Your task to perform on an android device: Clear the shopping cart on ebay.com. Add macbook air to the cart on ebay.com, then select checkout. Image 0: 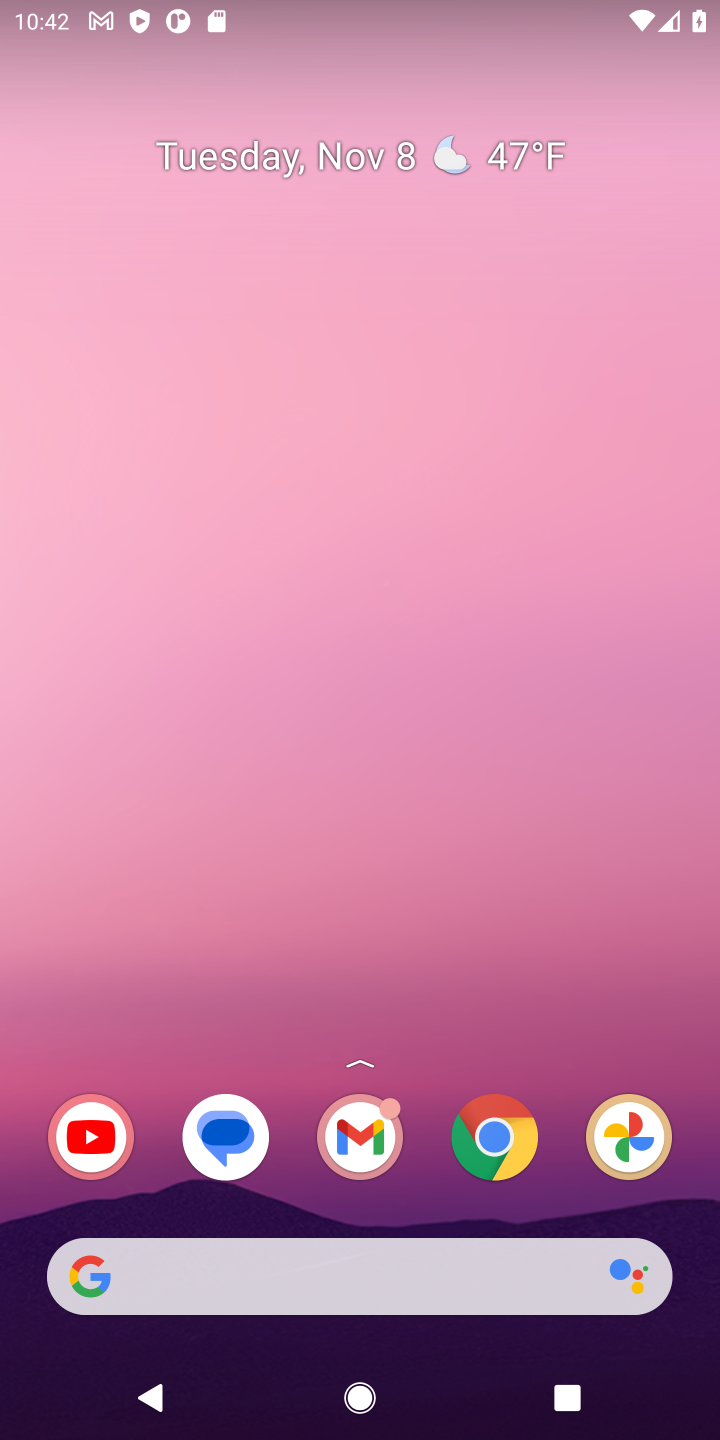
Step 0: click (499, 1140)
Your task to perform on an android device: Clear the shopping cart on ebay.com. Add macbook air to the cart on ebay.com, then select checkout. Image 1: 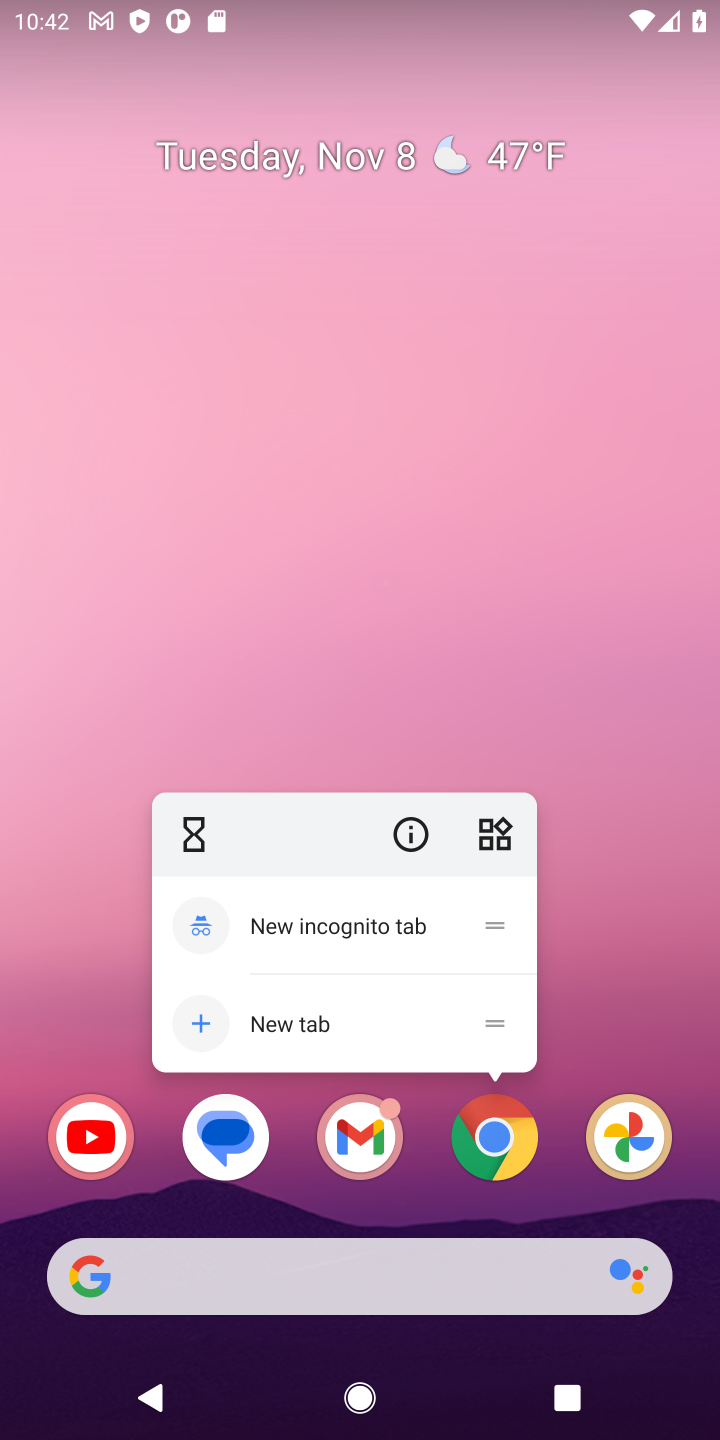
Step 1: click (499, 1140)
Your task to perform on an android device: Clear the shopping cart on ebay.com. Add macbook air to the cart on ebay.com, then select checkout. Image 2: 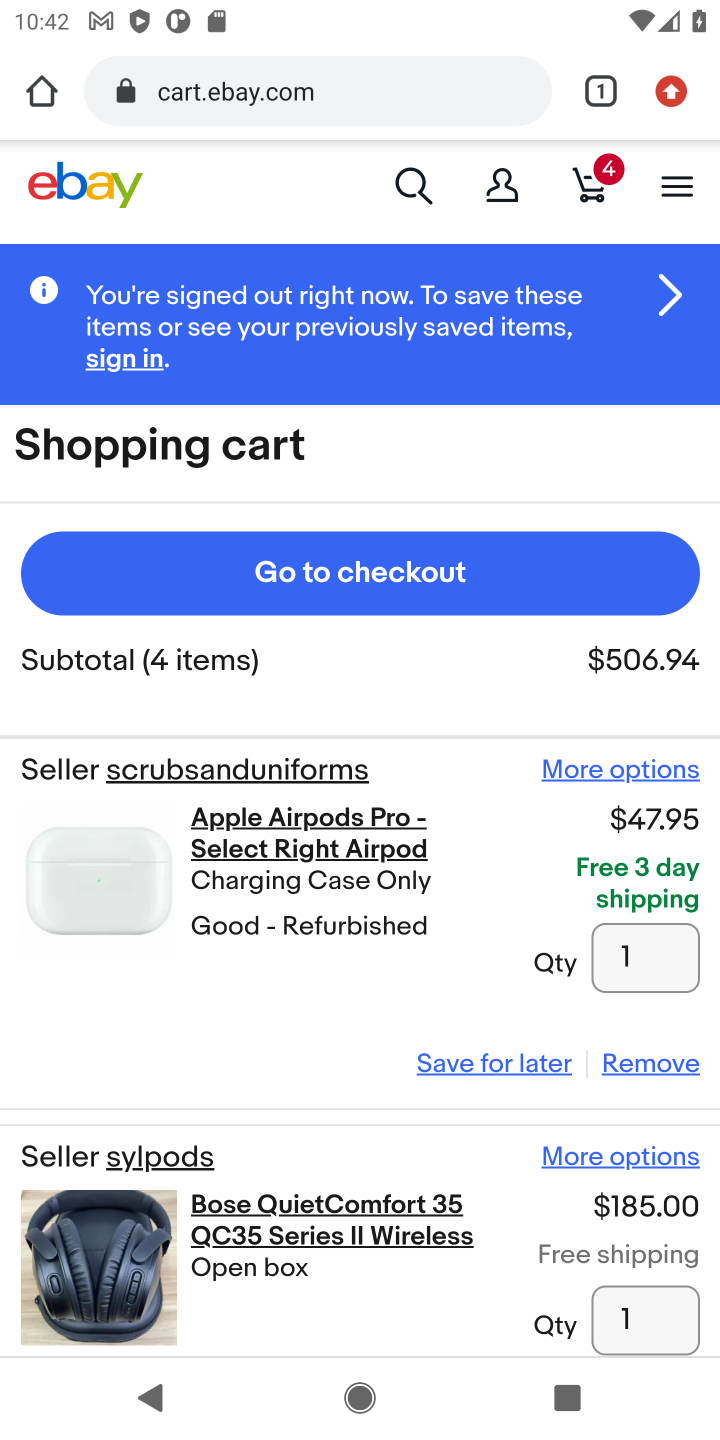
Step 2: click (390, 94)
Your task to perform on an android device: Clear the shopping cart on ebay.com. Add macbook air to the cart on ebay.com, then select checkout. Image 3: 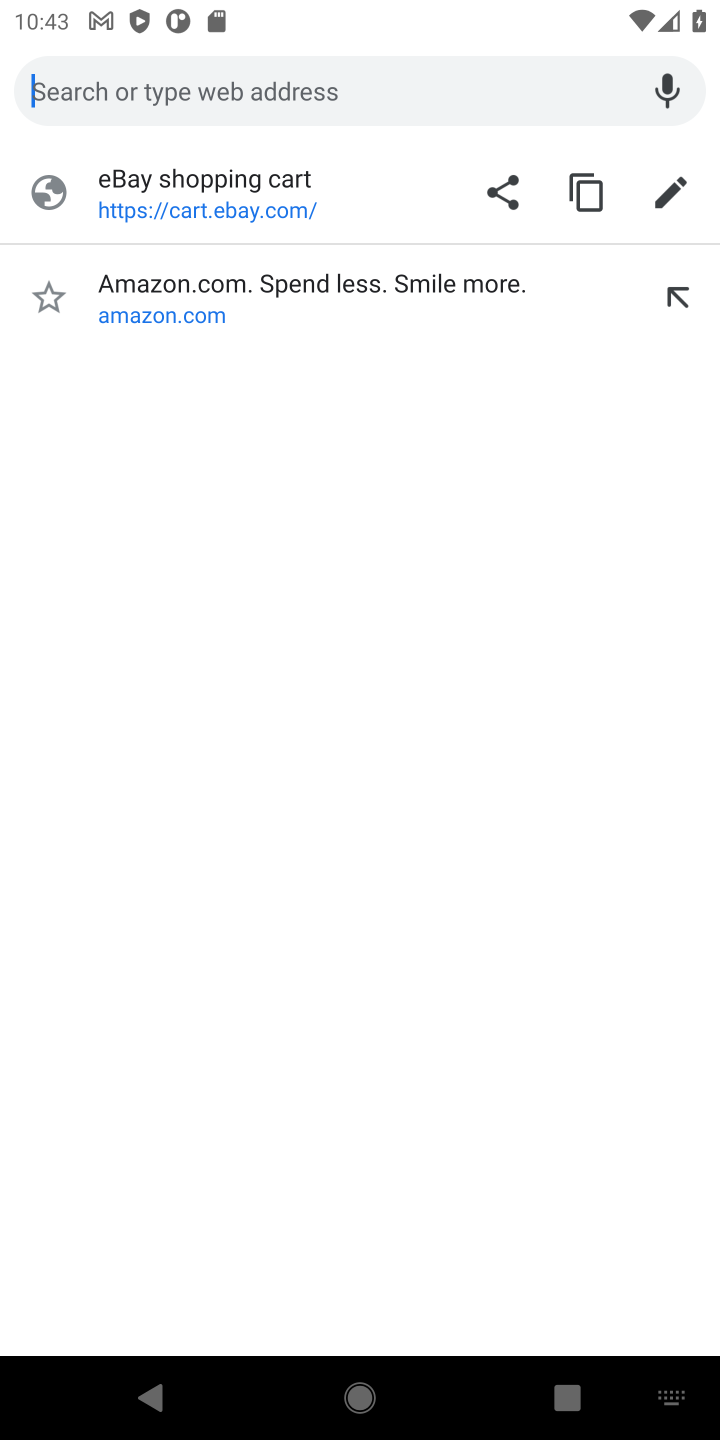
Step 3: type "ebay.com"
Your task to perform on an android device: Clear the shopping cart on ebay.com. Add macbook air to the cart on ebay.com, then select checkout. Image 4: 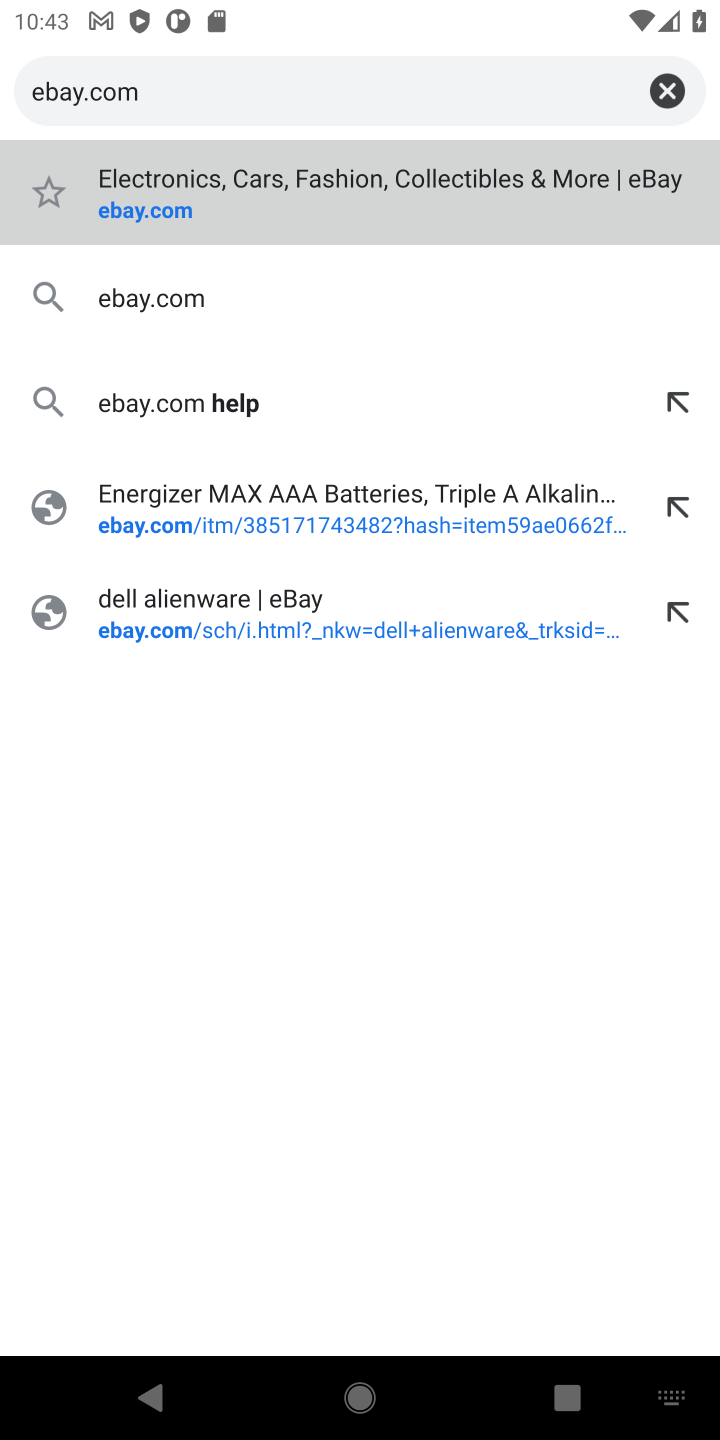
Step 4: click (164, 295)
Your task to perform on an android device: Clear the shopping cart on ebay.com. Add macbook air to the cart on ebay.com, then select checkout. Image 5: 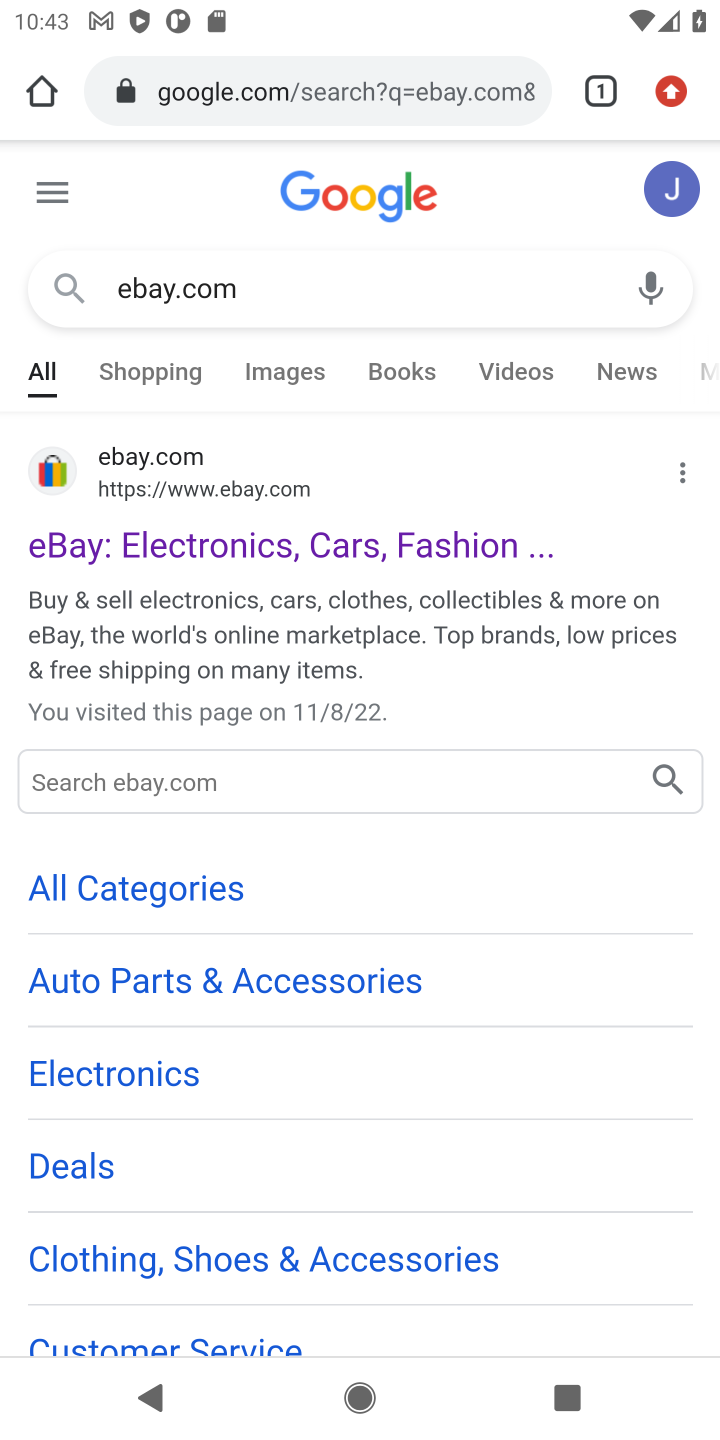
Step 5: click (381, 554)
Your task to perform on an android device: Clear the shopping cart on ebay.com. Add macbook air to the cart on ebay.com, then select checkout. Image 6: 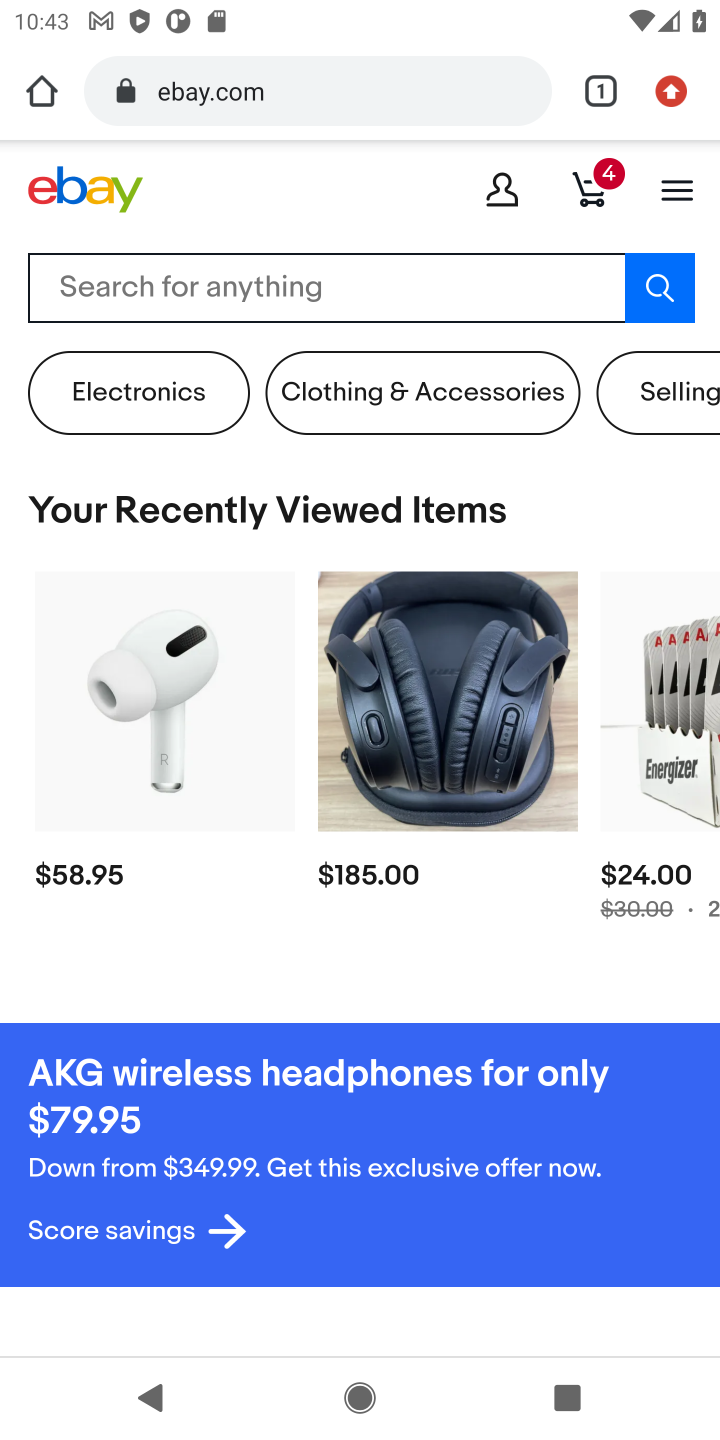
Step 6: click (589, 192)
Your task to perform on an android device: Clear the shopping cart on ebay.com. Add macbook air to the cart on ebay.com, then select checkout. Image 7: 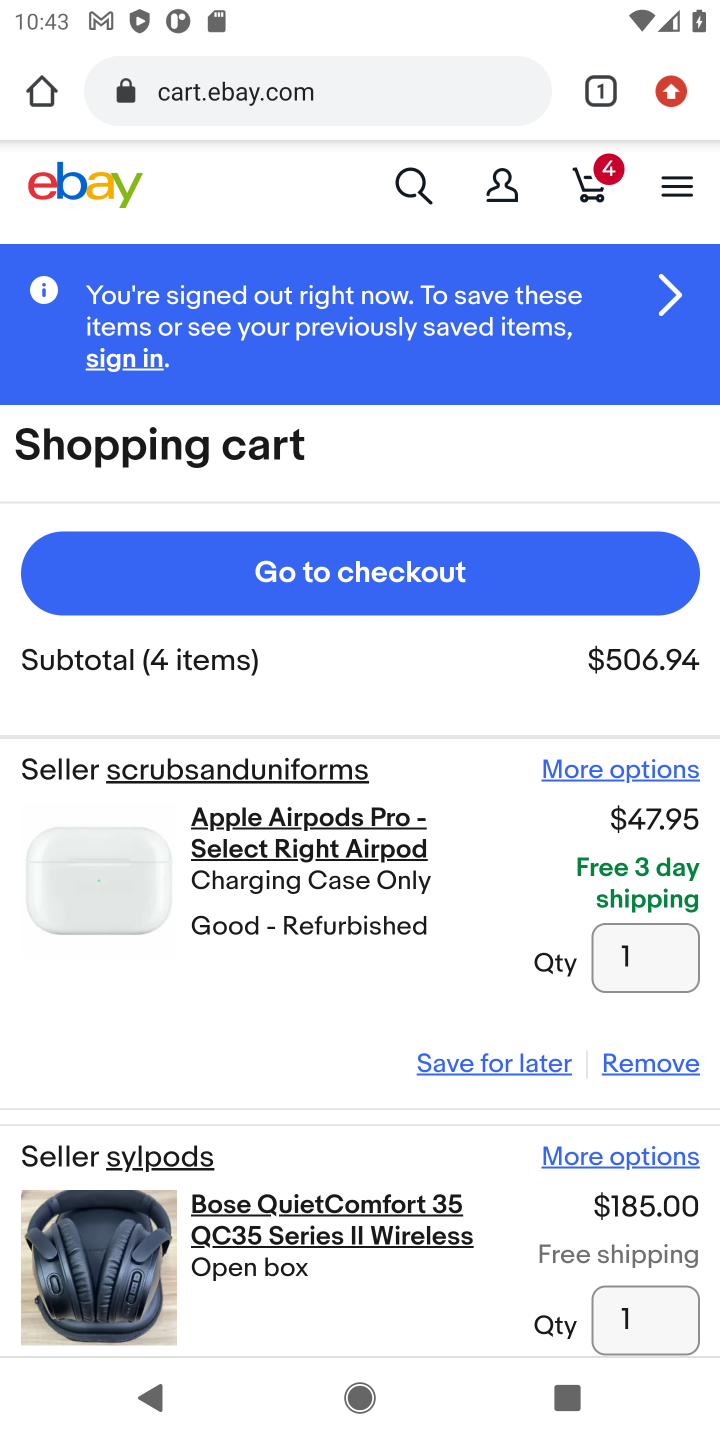
Step 7: click (627, 1063)
Your task to perform on an android device: Clear the shopping cart on ebay.com. Add macbook air to the cart on ebay.com, then select checkout. Image 8: 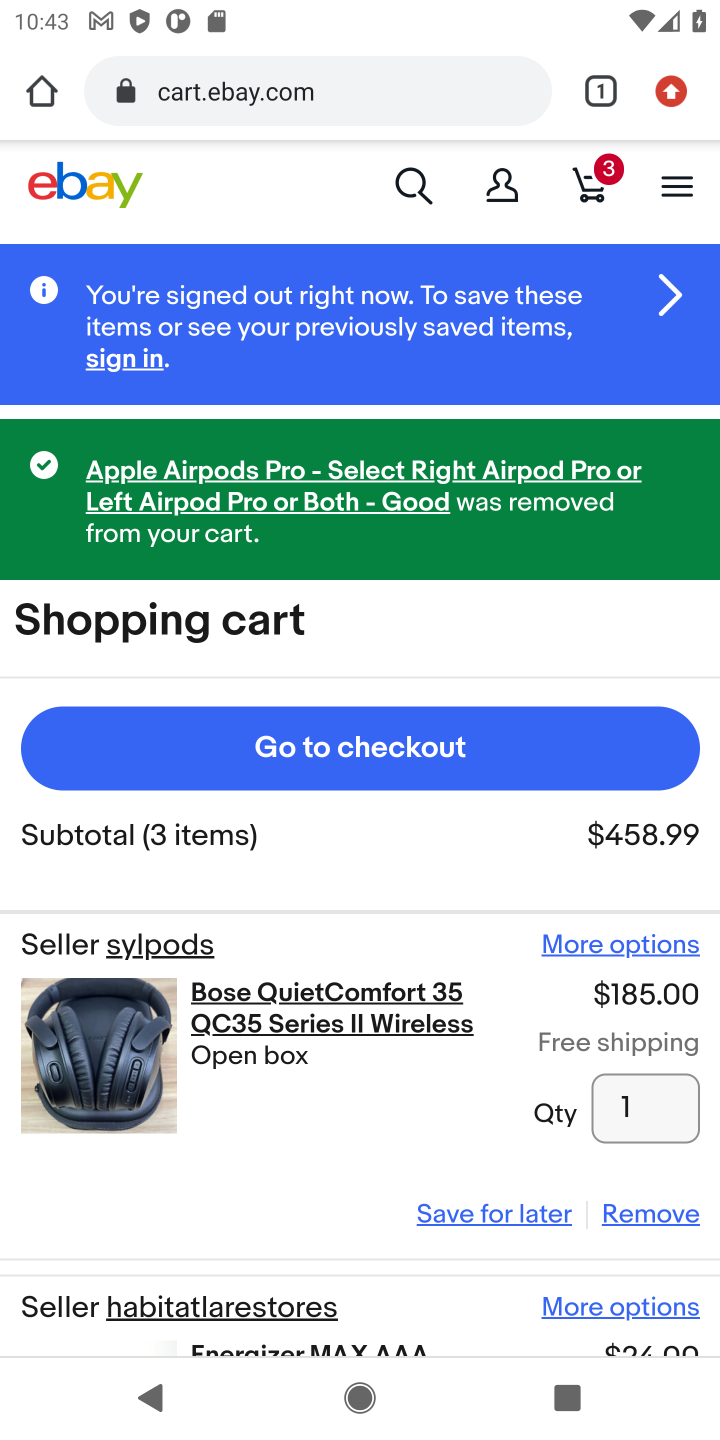
Step 8: click (638, 1224)
Your task to perform on an android device: Clear the shopping cart on ebay.com. Add macbook air to the cart on ebay.com, then select checkout. Image 9: 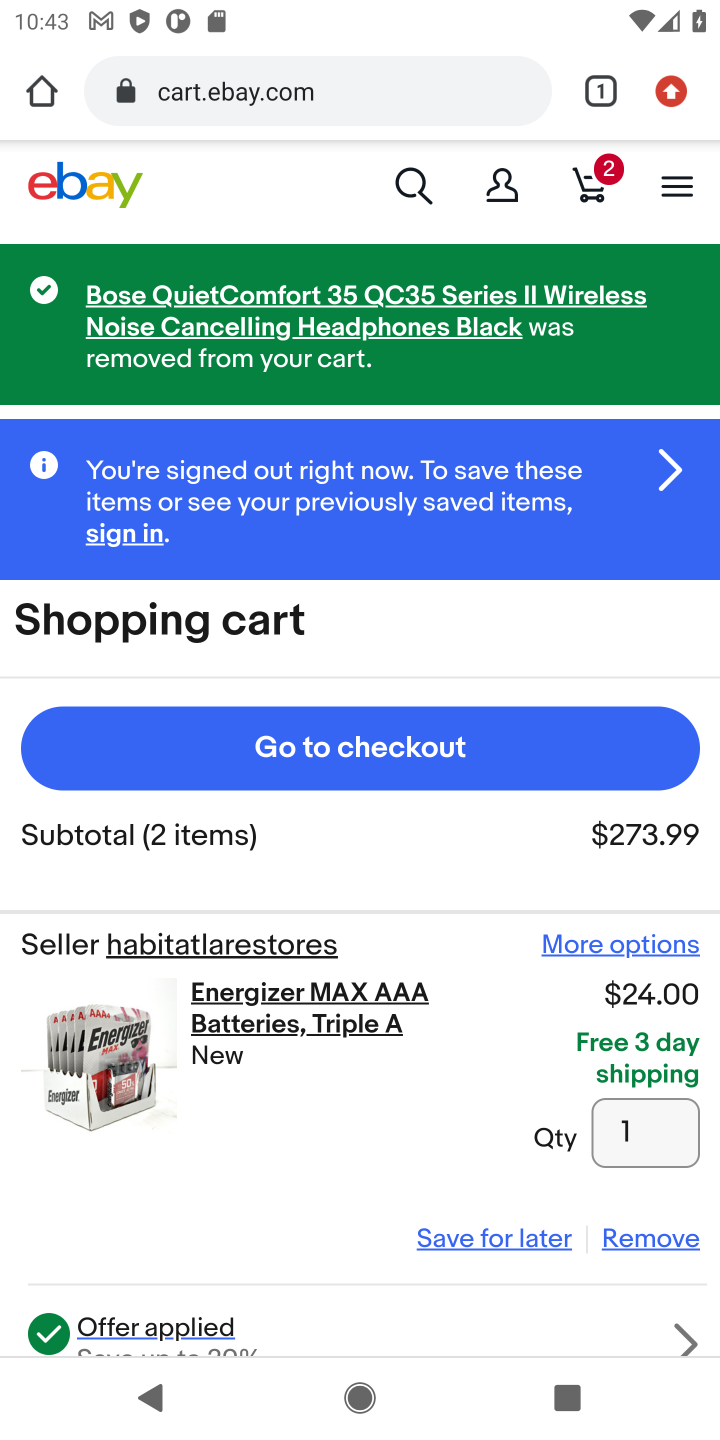
Step 9: click (645, 1248)
Your task to perform on an android device: Clear the shopping cart on ebay.com. Add macbook air to the cart on ebay.com, then select checkout. Image 10: 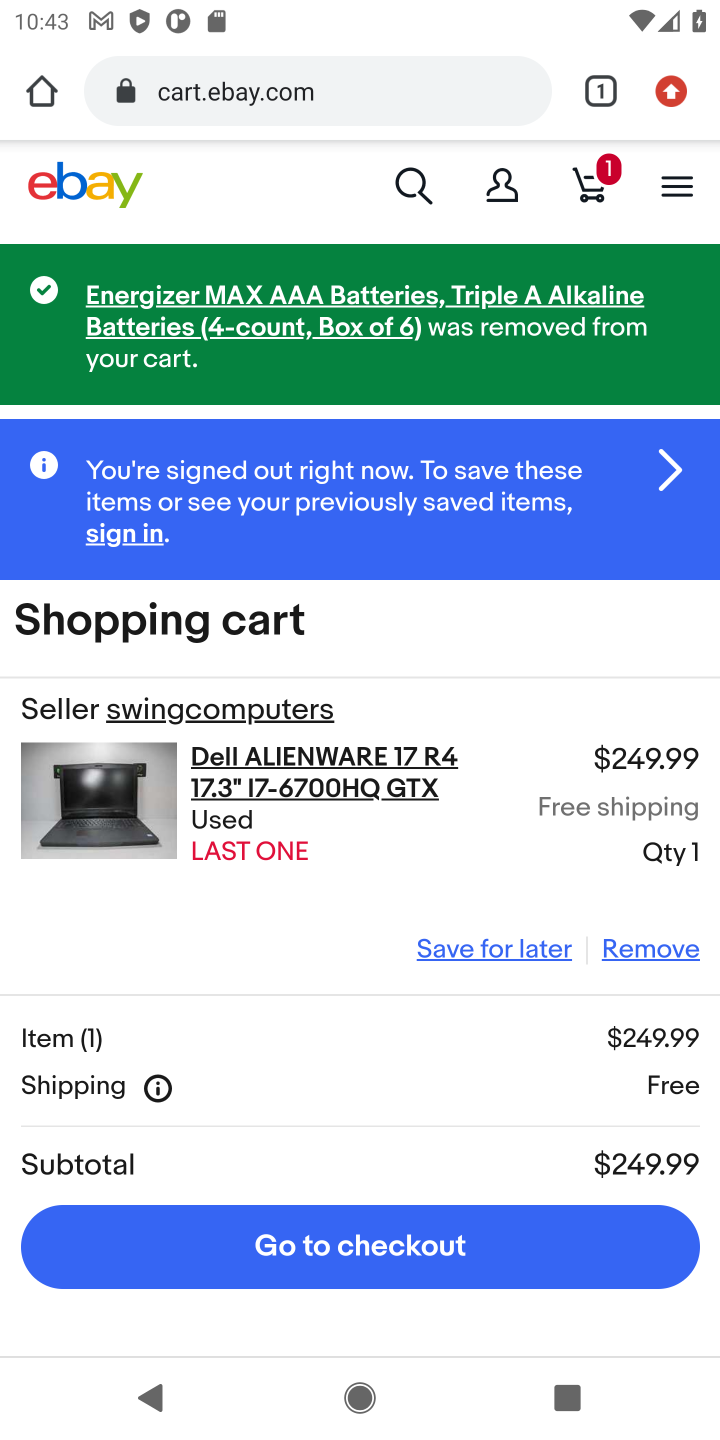
Step 10: click (652, 949)
Your task to perform on an android device: Clear the shopping cart on ebay.com. Add macbook air to the cart on ebay.com, then select checkout. Image 11: 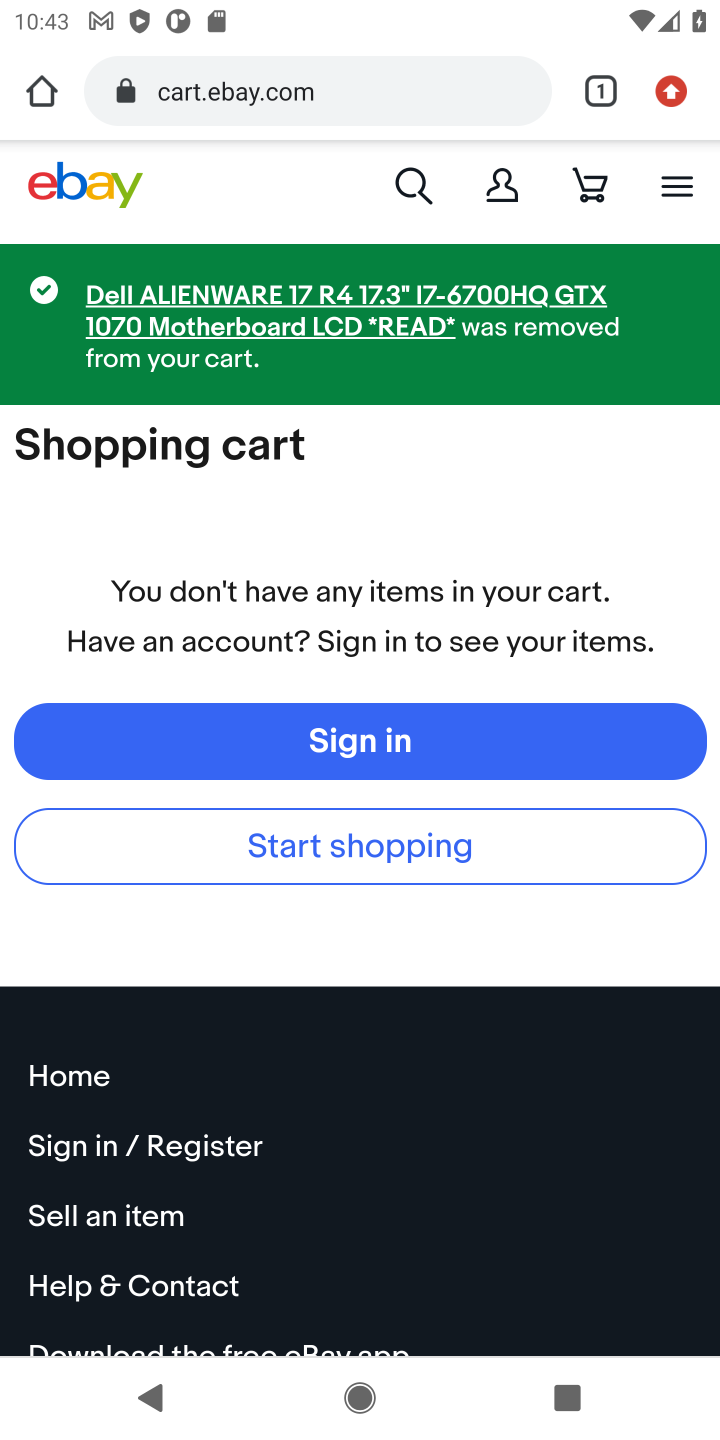
Step 11: click (398, 178)
Your task to perform on an android device: Clear the shopping cart on ebay.com. Add macbook air to the cart on ebay.com, then select checkout. Image 12: 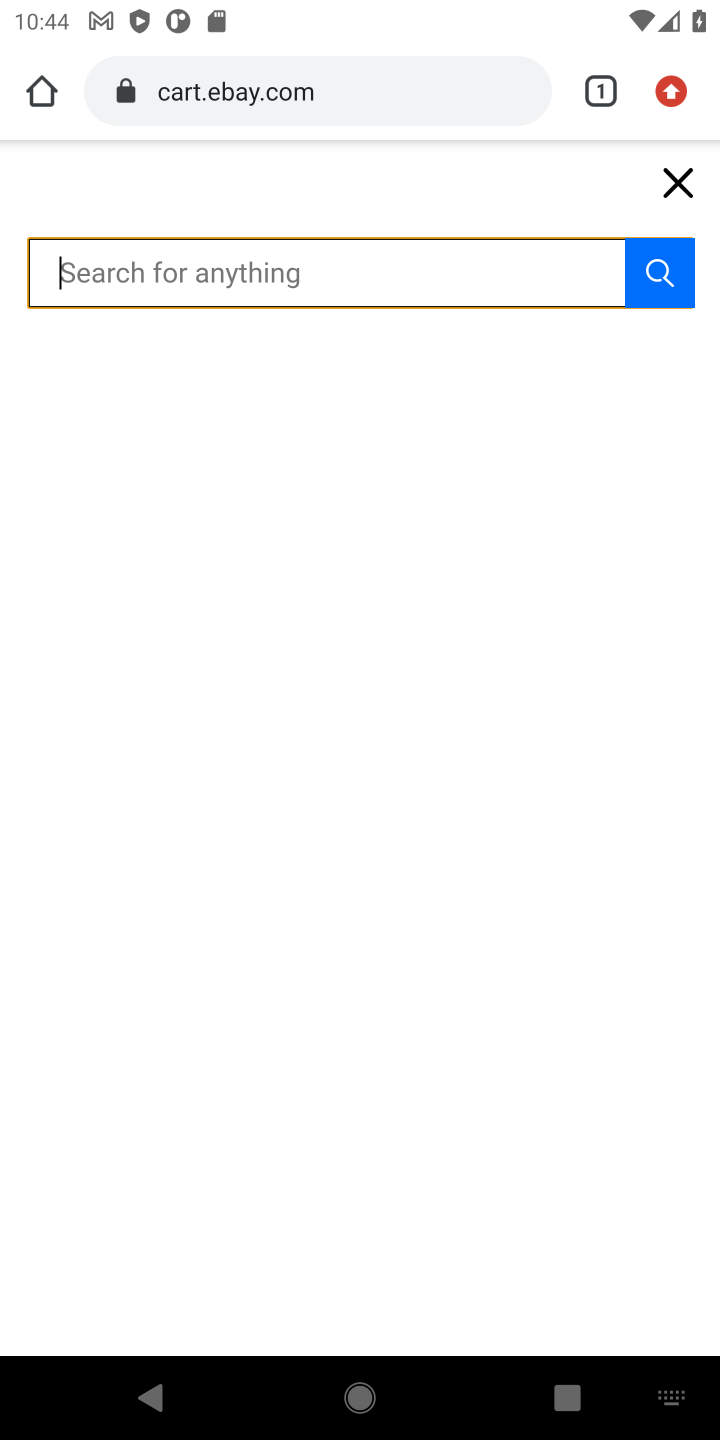
Step 12: type "macbook air"
Your task to perform on an android device: Clear the shopping cart on ebay.com. Add macbook air to the cart on ebay.com, then select checkout. Image 13: 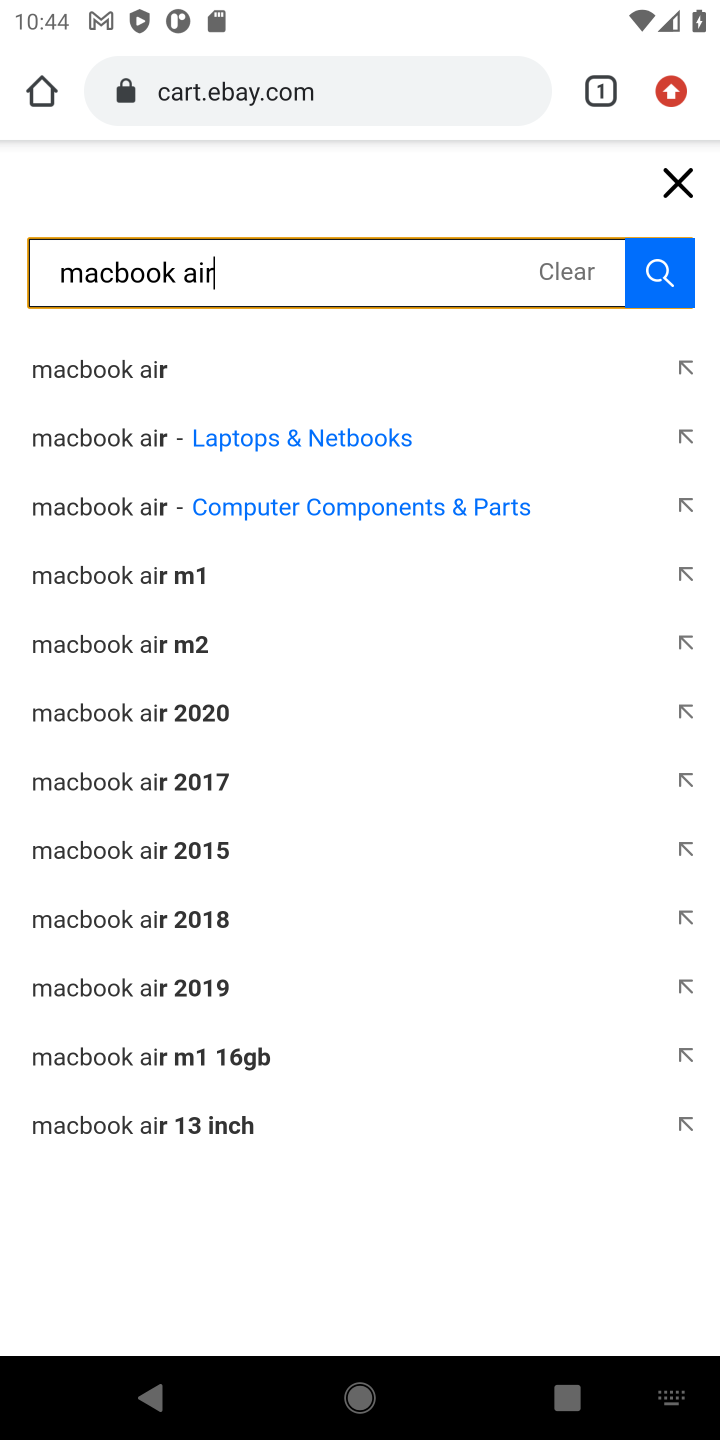
Step 13: click (668, 278)
Your task to perform on an android device: Clear the shopping cart on ebay.com. Add macbook air to the cart on ebay.com, then select checkout. Image 14: 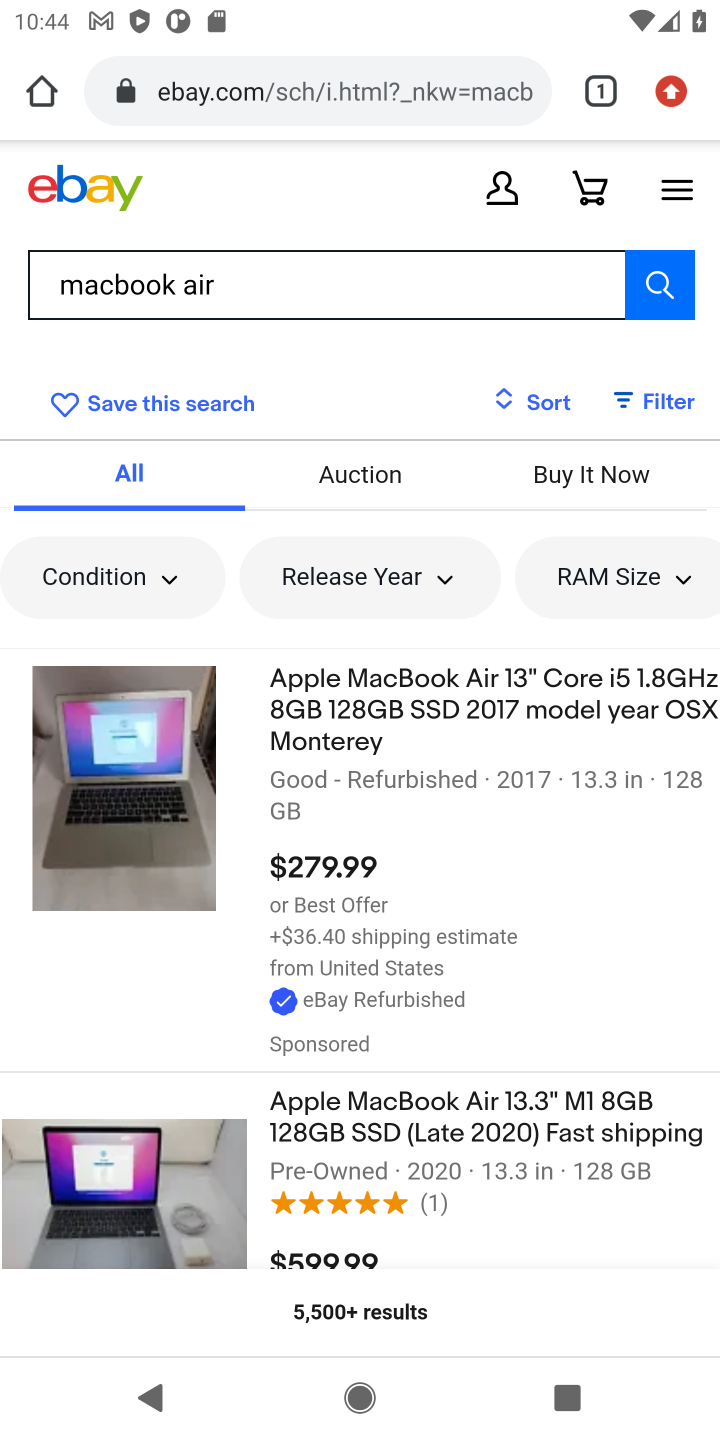
Step 14: click (419, 721)
Your task to perform on an android device: Clear the shopping cart on ebay.com. Add macbook air to the cart on ebay.com, then select checkout. Image 15: 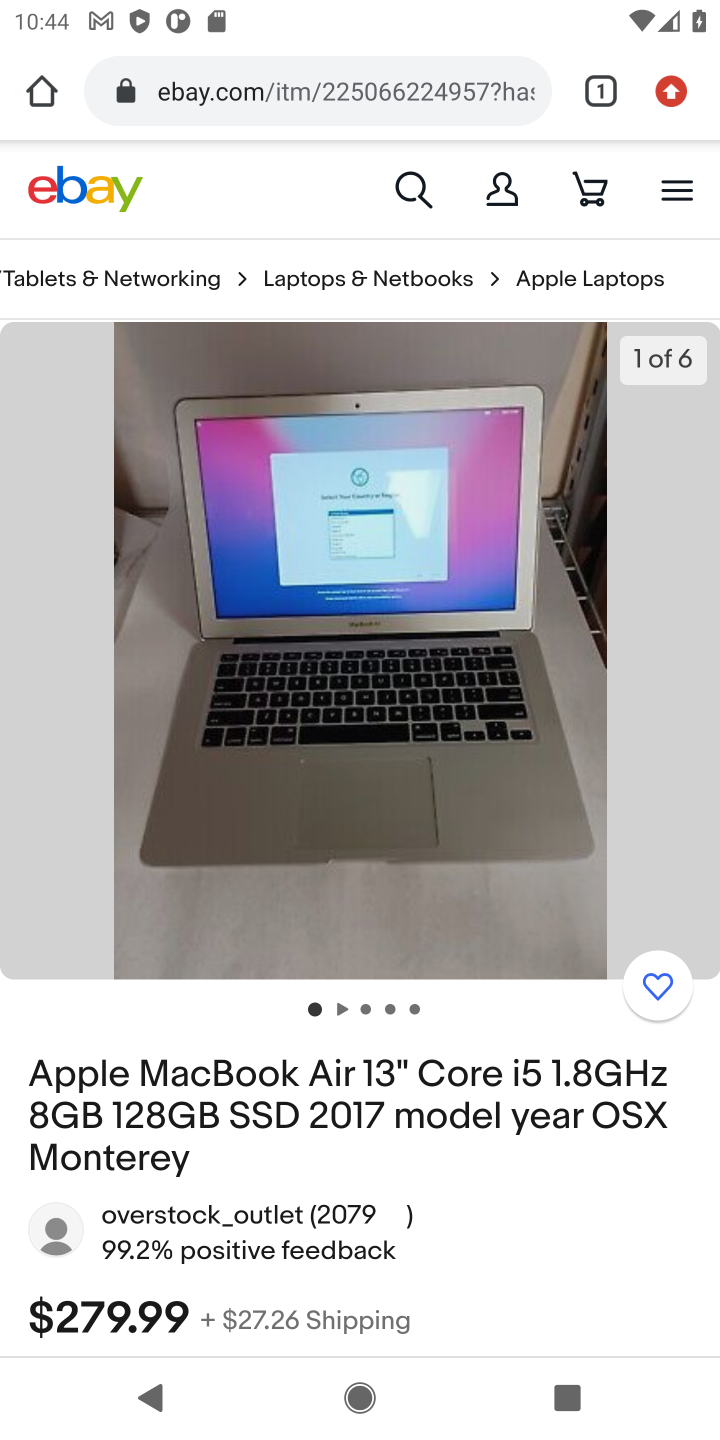
Step 15: drag from (448, 876) to (422, 603)
Your task to perform on an android device: Clear the shopping cart on ebay.com. Add macbook air to the cart on ebay.com, then select checkout. Image 16: 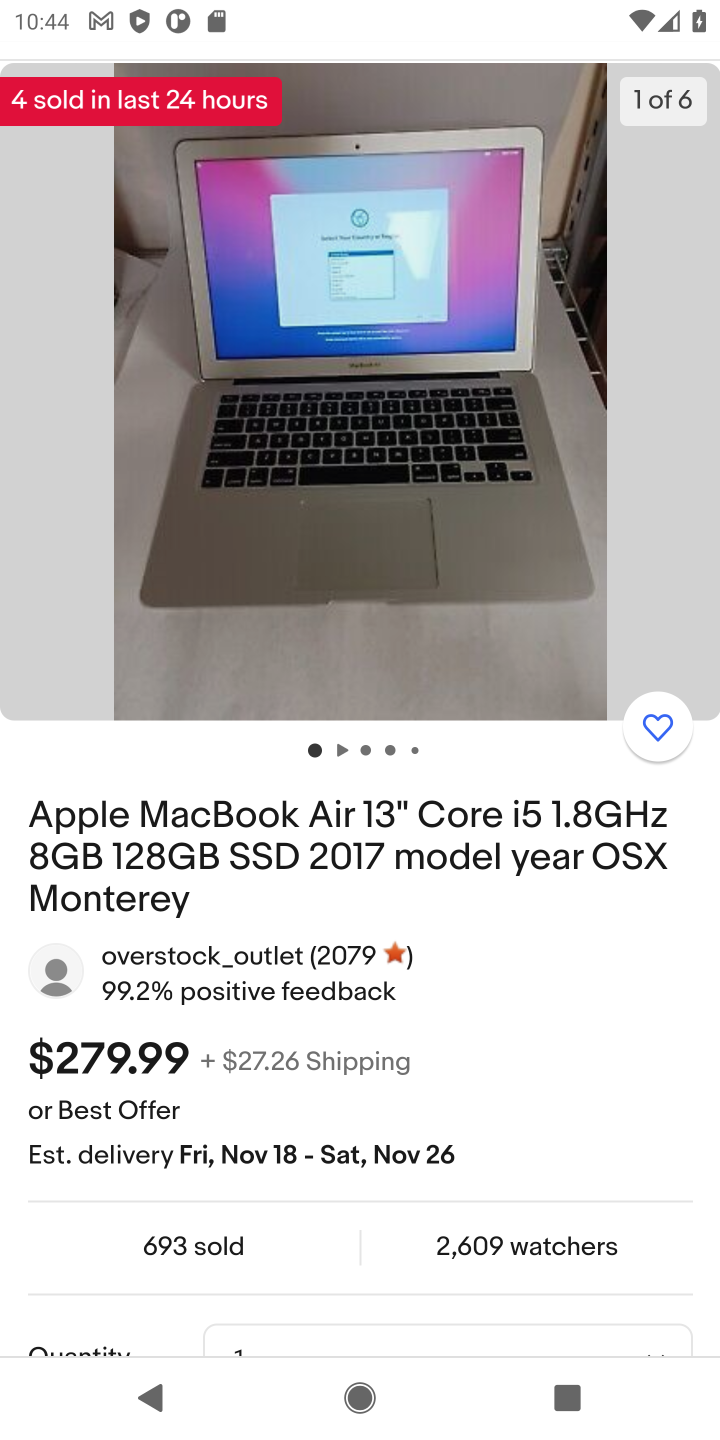
Step 16: drag from (500, 810) to (476, 432)
Your task to perform on an android device: Clear the shopping cart on ebay.com. Add macbook air to the cart on ebay.com, then select checkout. Image 17: 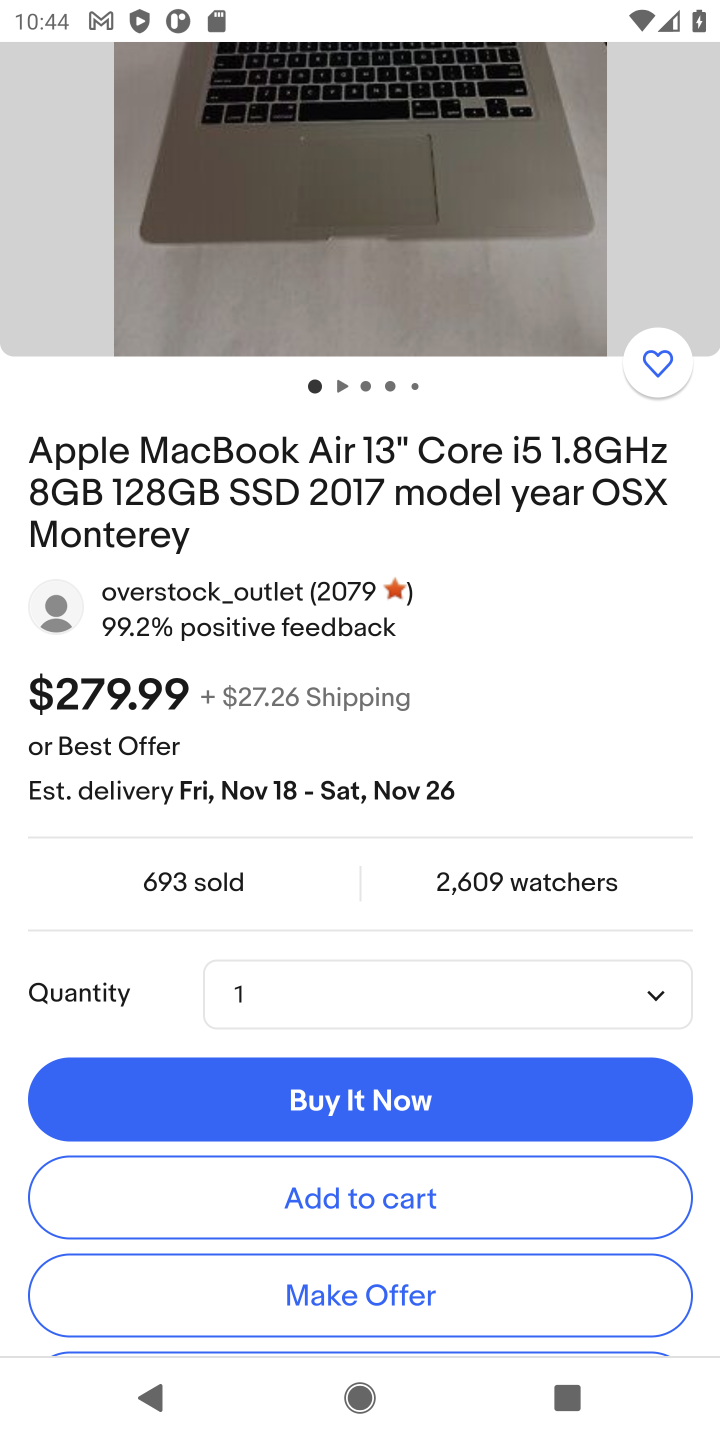
Step 17: click (380, 1199)
Your task to perform on an android device: Clear the shopping cart on ebay.com. Add macbook air to the cart on ebay.com, then select checkout. Image 18: 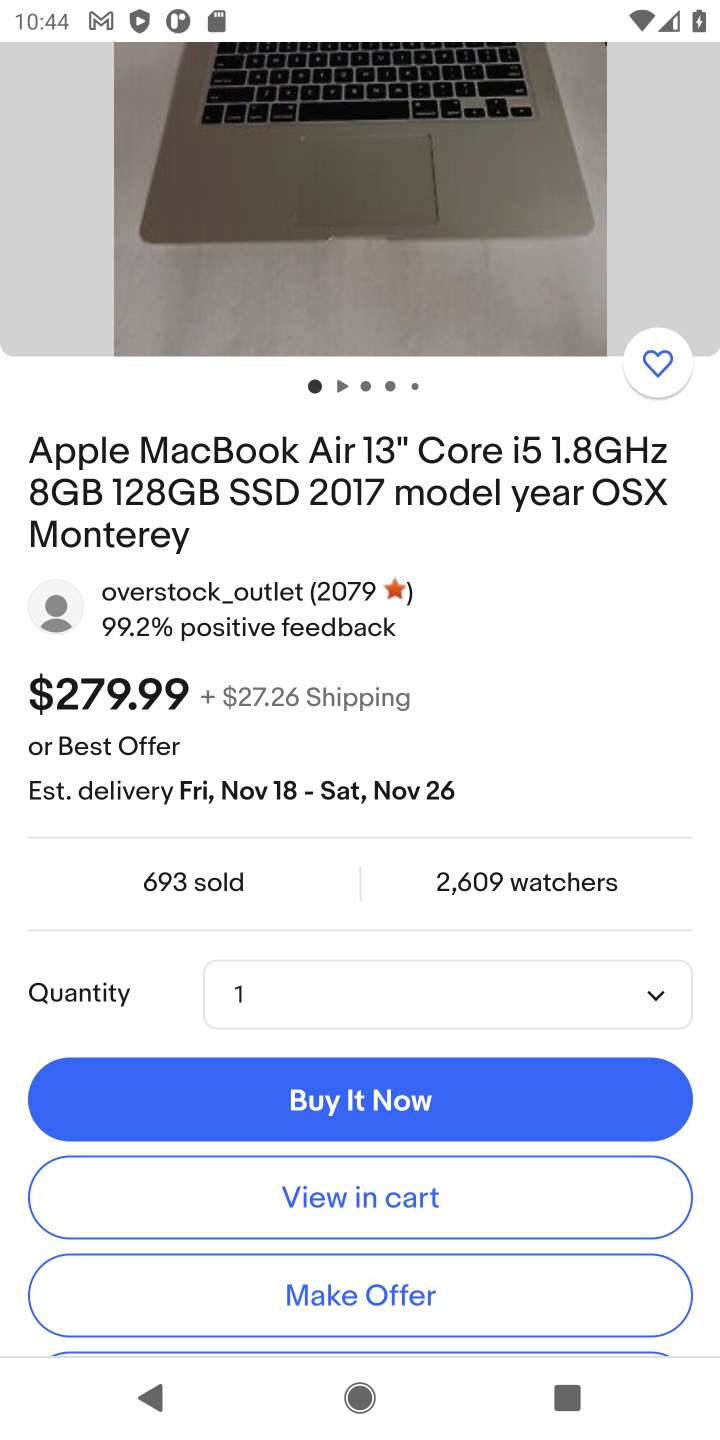
Step 18: click (380, 1199)
Your task to perform on an android device: Clear the shopping cart on ebay.com. Add macbook air to the cart on ebay.com, then select checkout. Image 19: 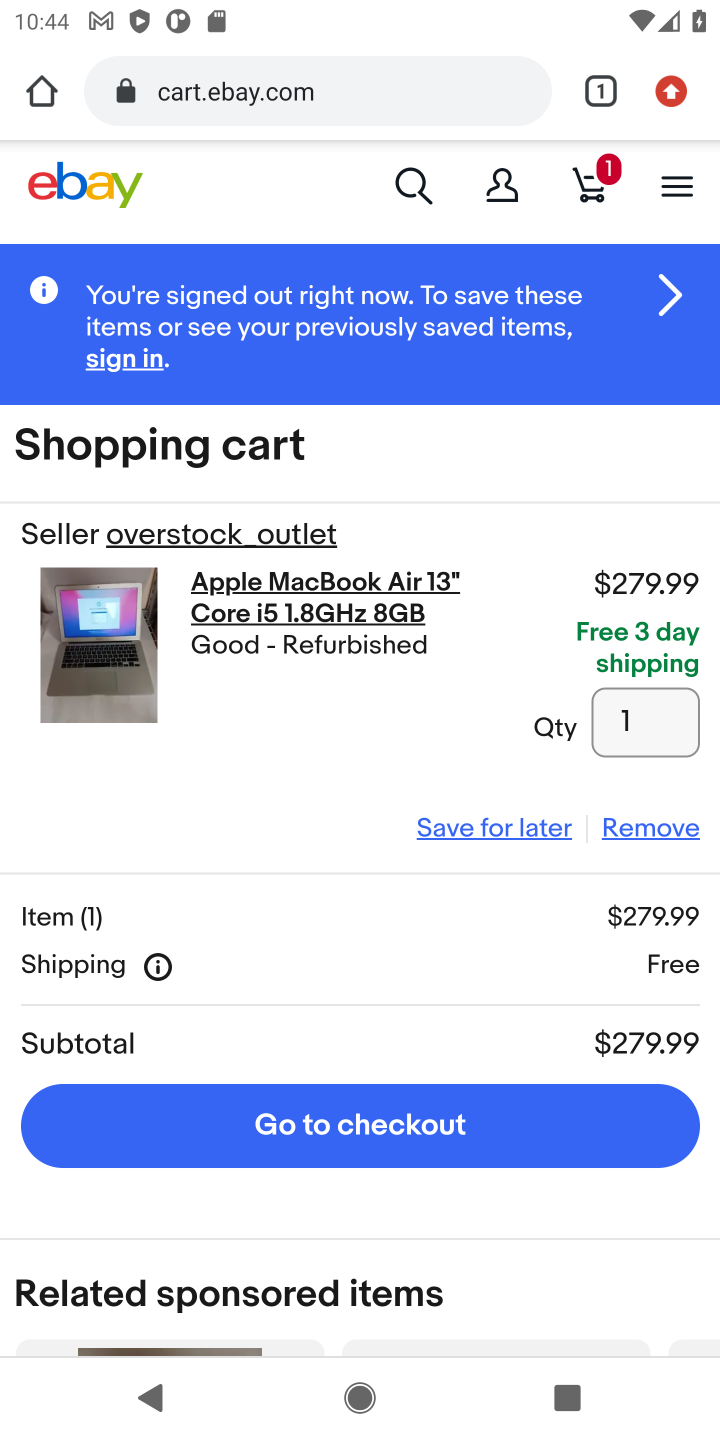
Step 19: click (338, 1123)
Your task to perform on an android device: Clear the shopping cart on ebay.com. Add macbook air to the cart on ebay.com, then select checkout. Image 20: 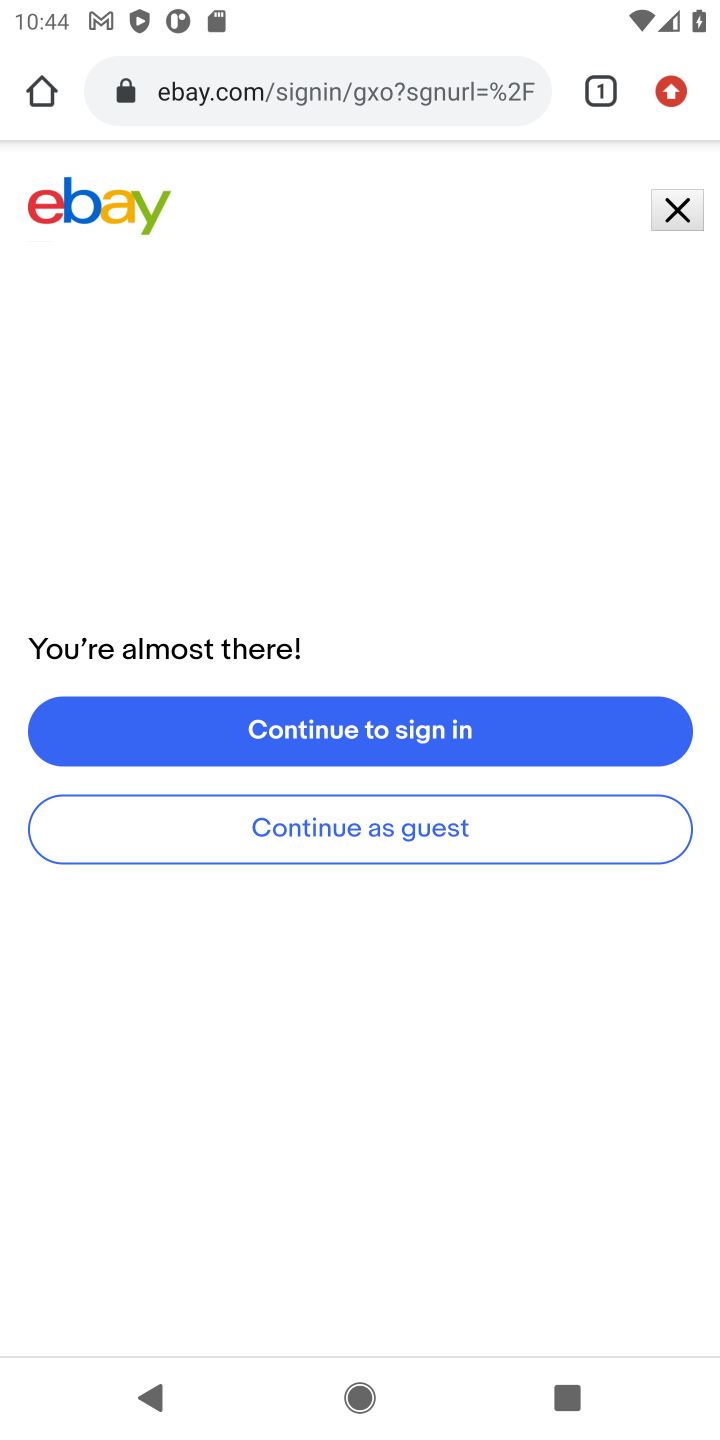
Step 20: task complete